Your task to perform on an android device: turn on sleep mode Image 0: 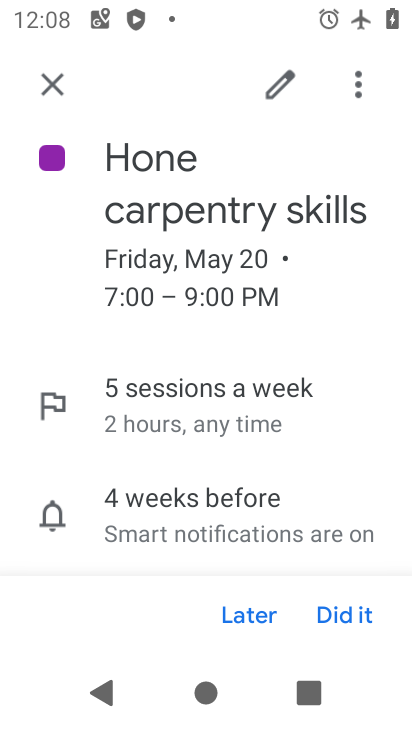
Step 0: press home button
Your task to perform on an android device: turn on sleep mode Image 1: 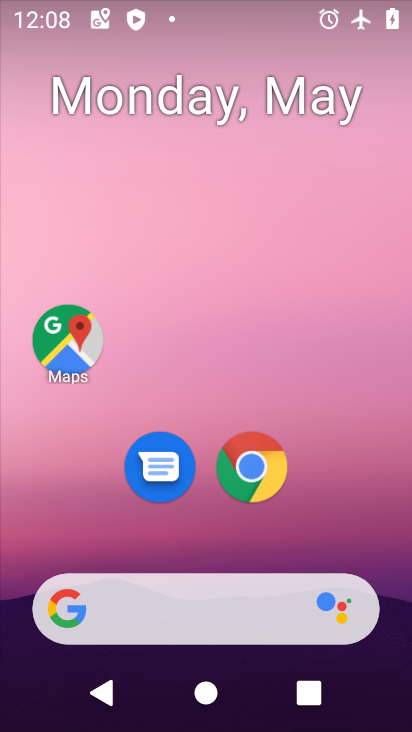
Step 1: drag from (365, 564) to (358, 711)
Your task to perform on an android device: turn on sleep mode Image 2: 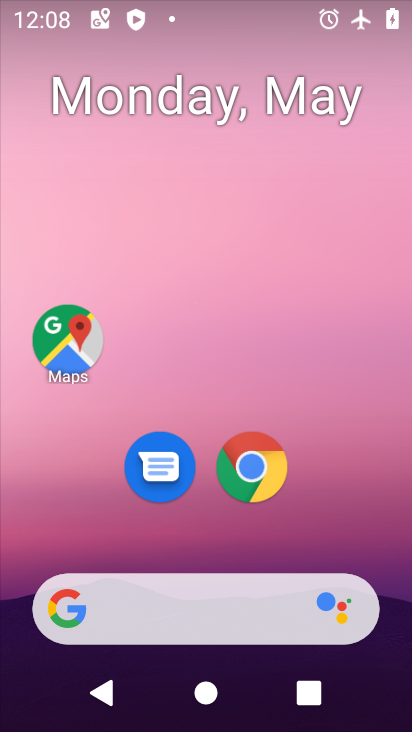
Step 2: drag from (368, 566) to (391, 8)
Your task to perform on an android device: turn on sleep mode Image 3: 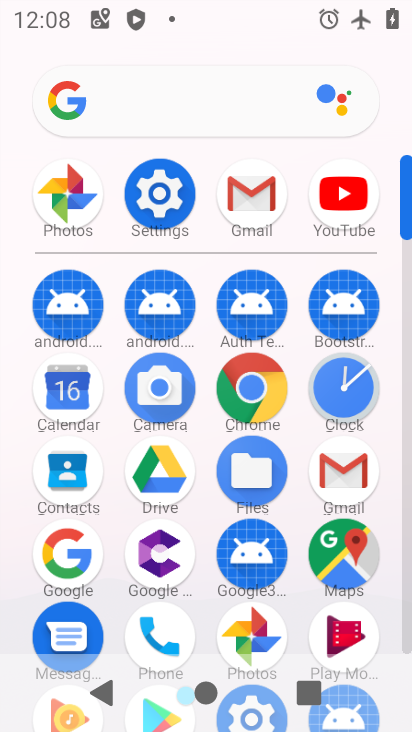
Step 3: click (157, 204)
Your task to perform on an android device: turn on sleep mode Image 4: 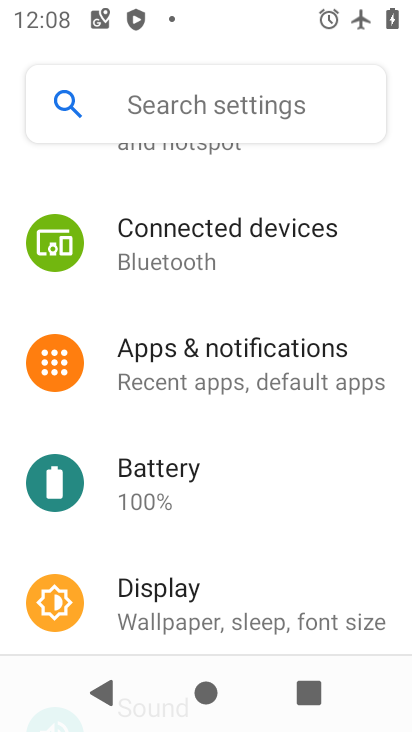
Step 4: click (151, 597)
Your task to perform on an android device: turn on sleep mode Image 5: 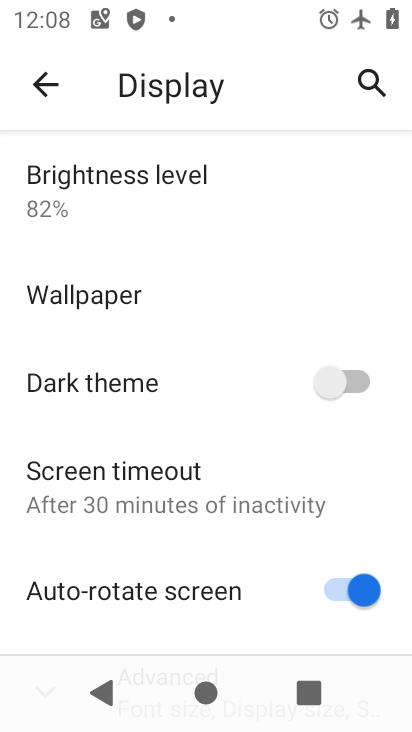
Step 5: drag from (161, 552) to (147, 108)
Your task to perform on an android device: turn on sleep mode Image 6: 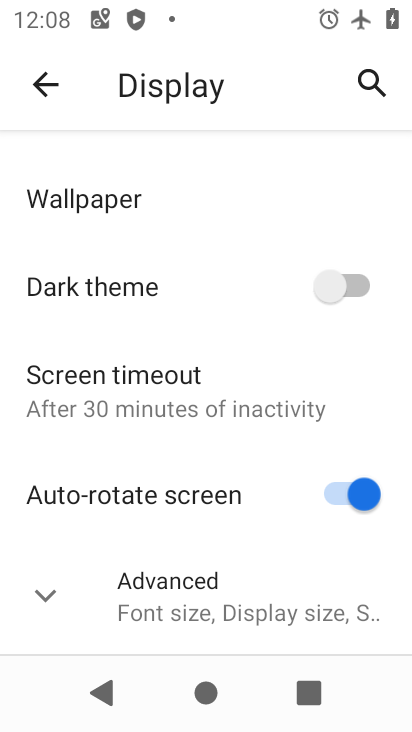
Step 6: click (55, 595)
Your task to perform on an android device: turn on sleep mode Image 7: 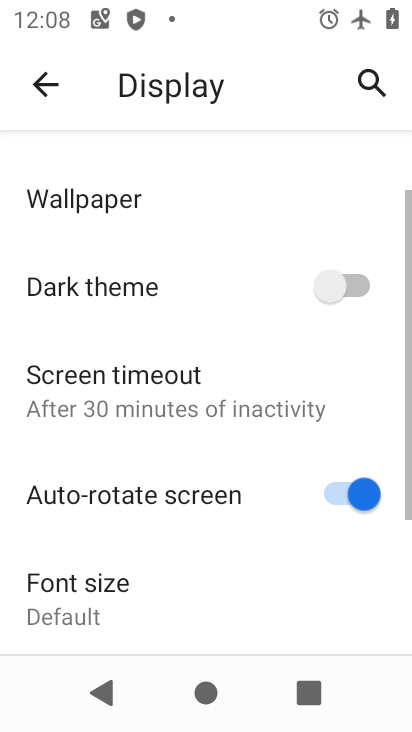
Step 7: task complete